Your task to perform on an android device: set default search engine in the chrome app Image 0: 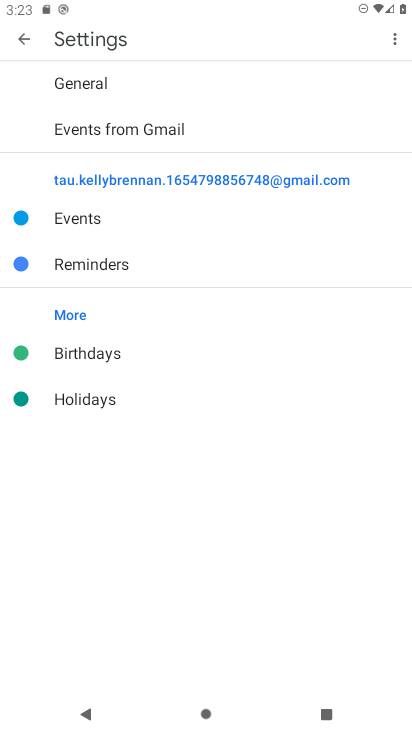
Step 0: press home button
Your task to perform on an android device: set default search engine in the chrome app Image 1: 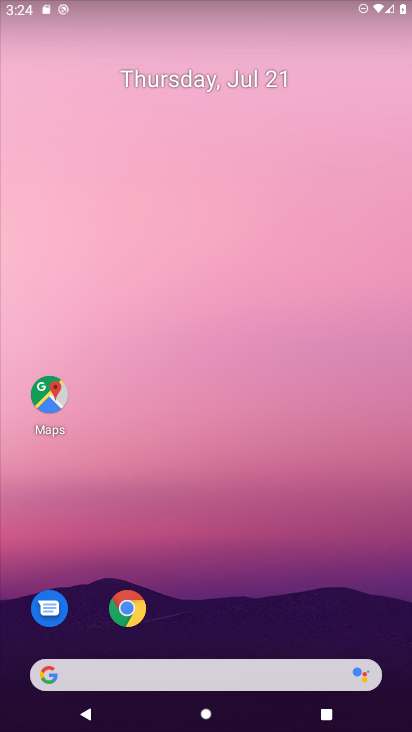
Step 1: click (203, 610)
Your task to perform on an android device: set default search engine in the chrome app Image 2: 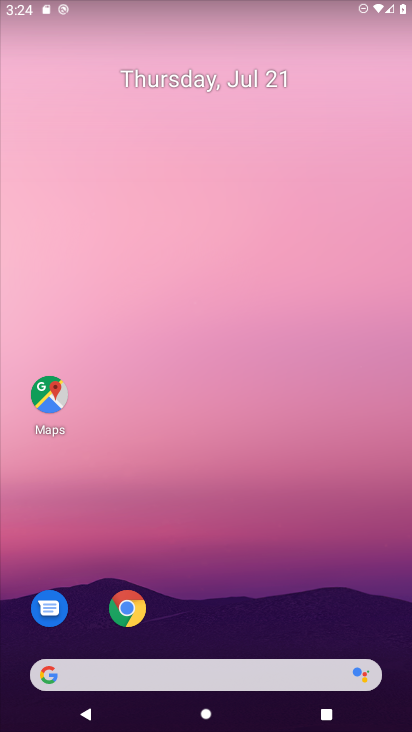
Step 2: click (144, 602)
Your task to perform on an android device: set default search engine in the chrome app Image 3: 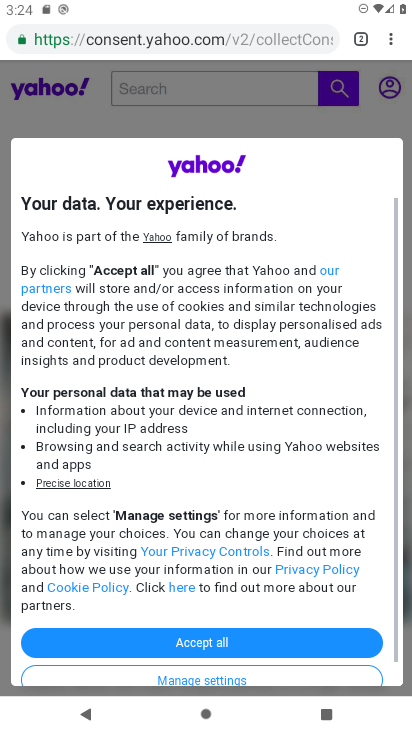
Step 3: click (388, 50)
Your task to perform on an android device: set default search engine in the chrome app Image 4: 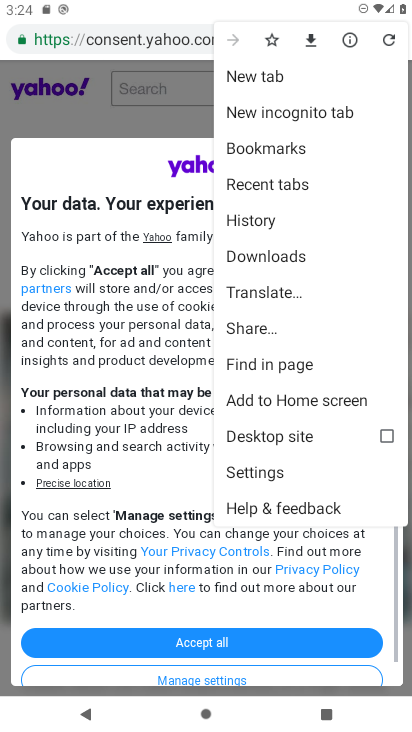
Step 4: click (280, 469)
Your task to perform on an android device: set default search engine in the chrome app Image 5: 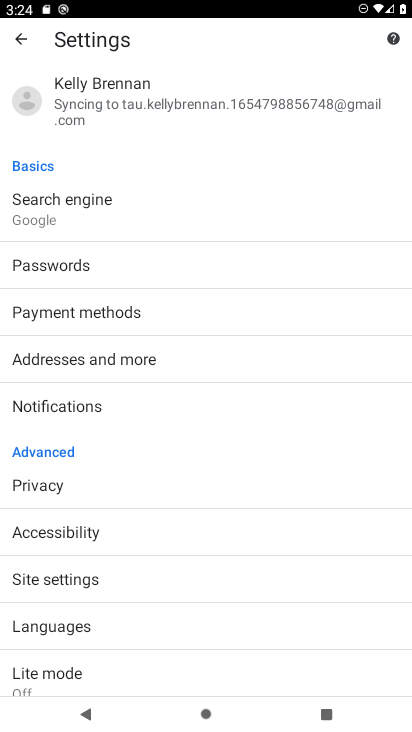
Step 5: click (103, 222)
Your task to perform on an android device: set default search engine in the chrome app Image 6: 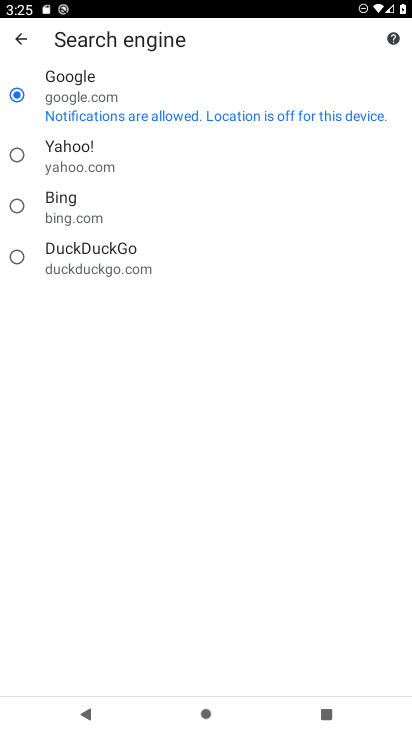
Step 6: task complete